Your task to perform on an android device: Open Chrome and go to settings Image 0: 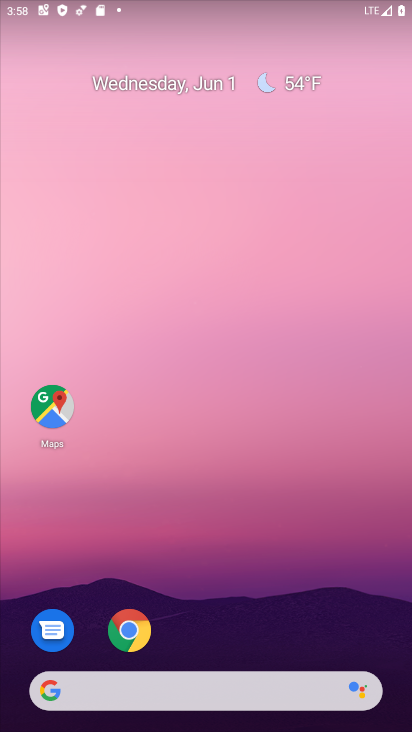
Step 0: drag from (264, 568) to (204, 51)
Your task to perform on an android device: Open Chrome and go to settings Image 1: 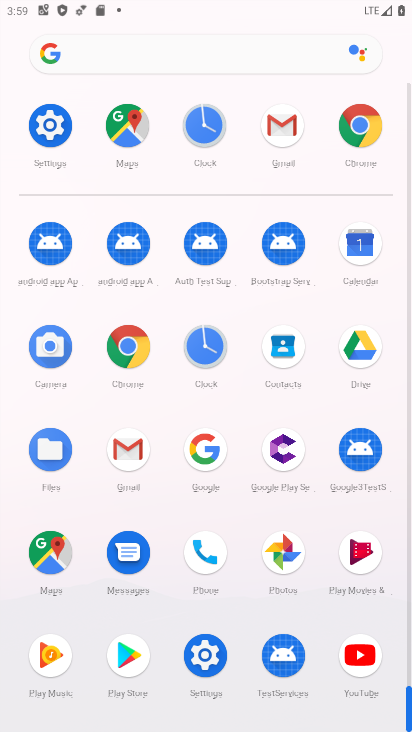
Step 1: drag from (11, 593) to (10, 213)
Your task to perform on an android device: Open Chrome and go to settings Image 2: 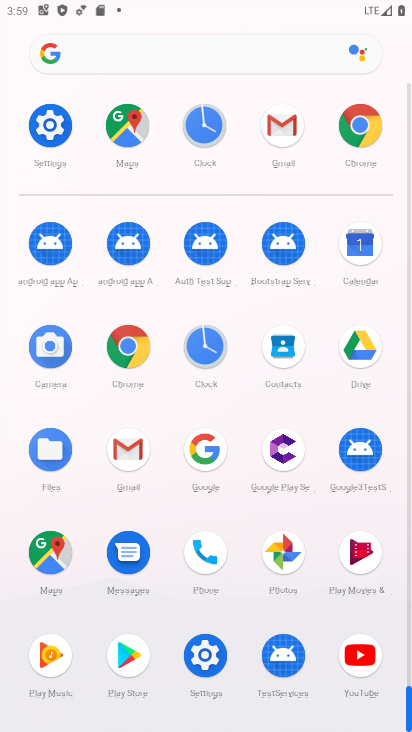
Step 2: click (129, 341)
Your task to perform on an android device: Open Chrome and go to settings Image 3: 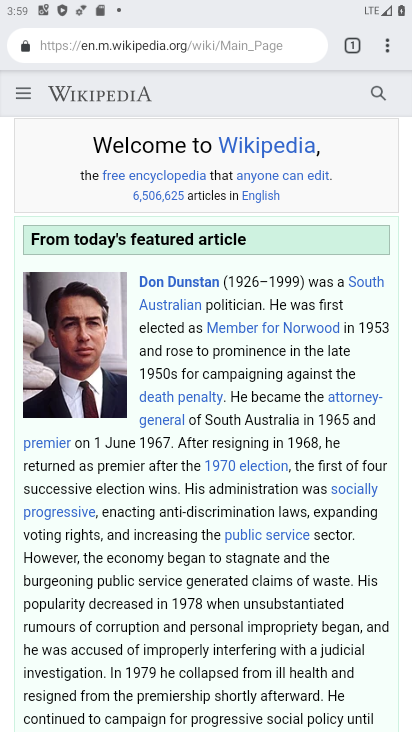
Step 3: task complete